Your task to perform on an android device: uninstall "Adobe Express: Graphic Design" Image 0: 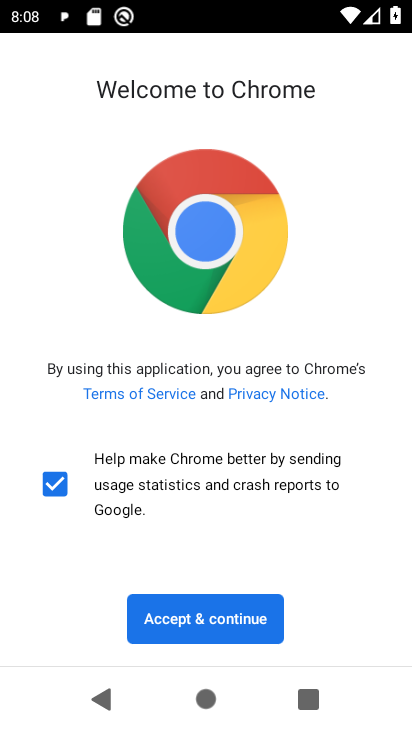
Step 0: press home button
Your task to perform on an android device: uninstall "Adobe Express: Graphic Design" Image 1: 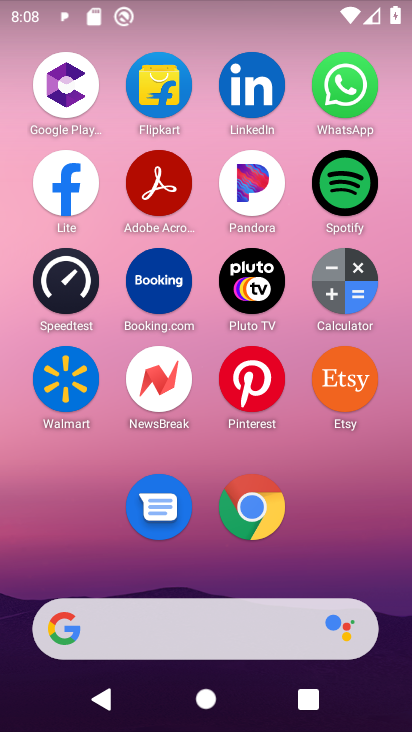
Step 1: drag from (370, 549) to (381, 64)
Your task to perform on an android device: uninstall "Adobe Express: Graphic Design" Image 2: 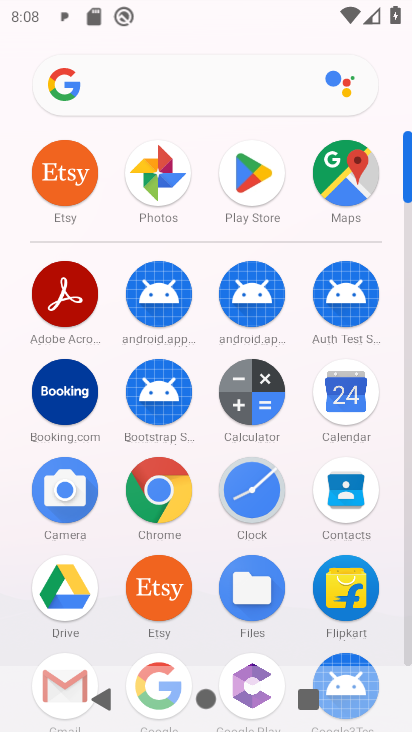
Step 2: click (254, 179)
Your task to perform on an android device: uninstall "Adobe Express: Graphic Design" Image 3: 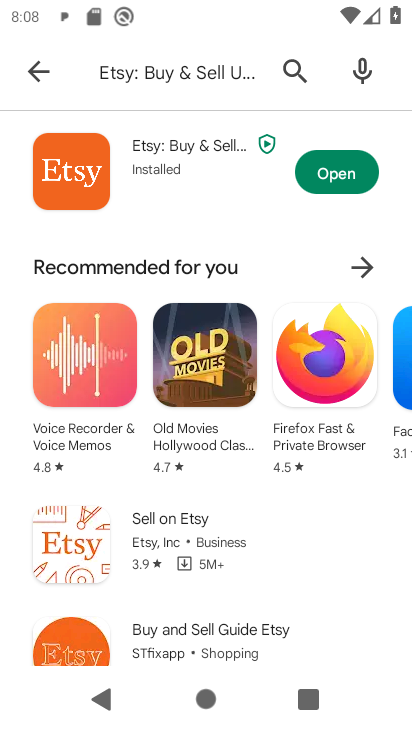
Step 3: press back button
Your task to perform on an android device: uninstall "Adobe Express: Graphic Design" Image 4: 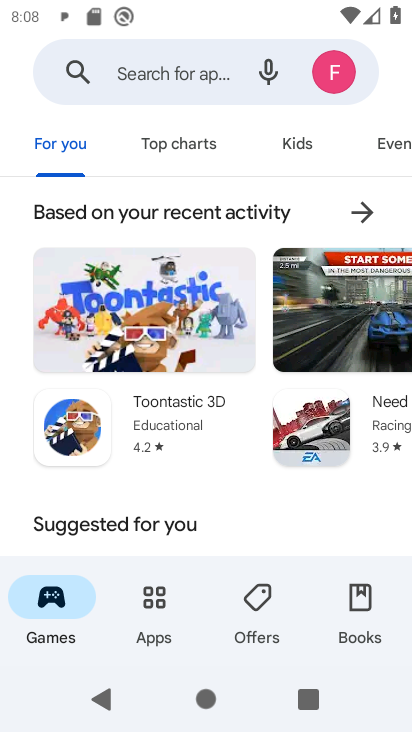
Step 4: click (176, 68)
Your task to perform on an android device: uninstall "Adobe Express: Graphic Design" Image 5: 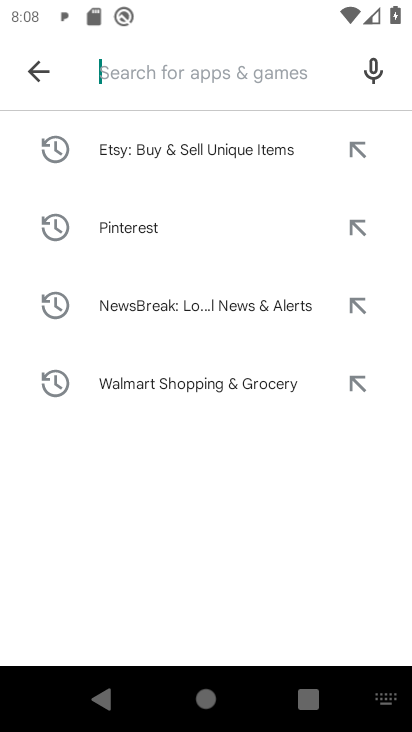
Step 5: type "Adobe Express: Graphic Design"
Your task to perform on an android device: uninstall "Adobe Express: Graphic Design" Image 6: 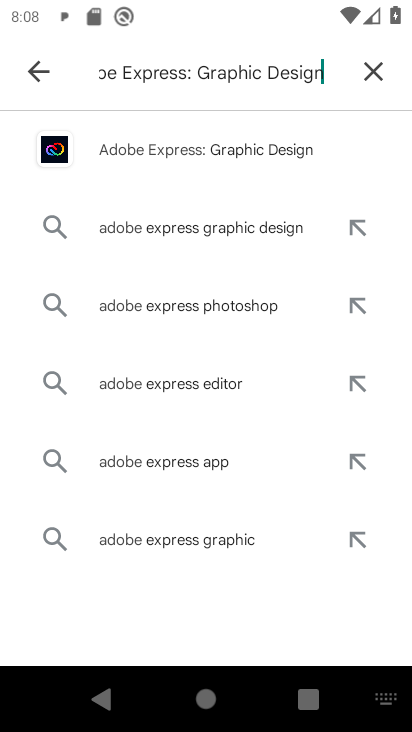
Step 6: press enter
Your task to perform on an android device: uninstall "Adobe Express: Graphic Design" Image 7: 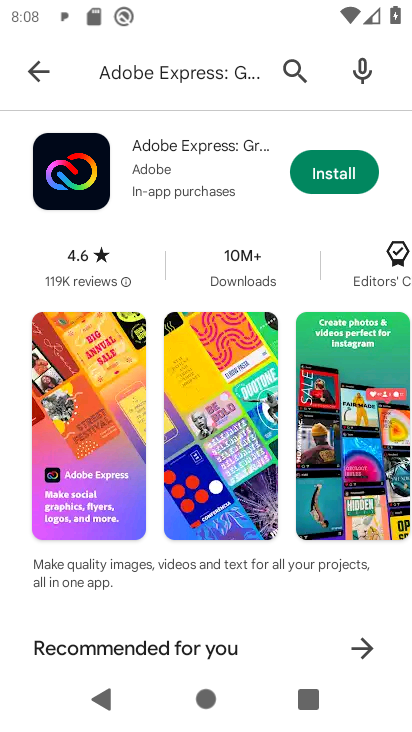
Step 7: task complete